Your task to perform on an android device: read, delete, or share a saved page in the chrome app Image 0: 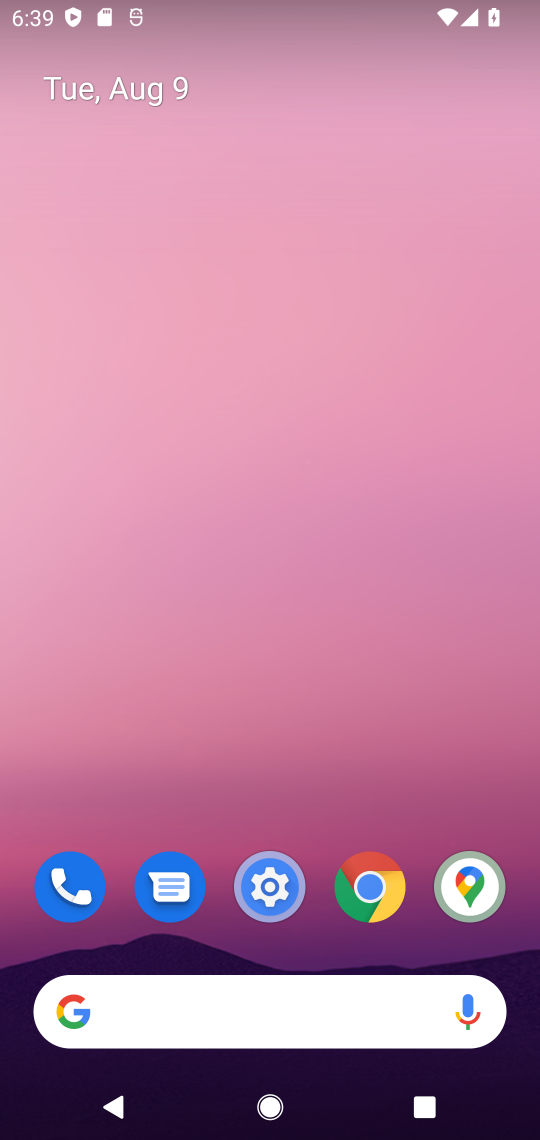
Step 0: click (378, 875)
Your task to perform on an android device: read, delete, or share a saved page in the chrome app Image 1: 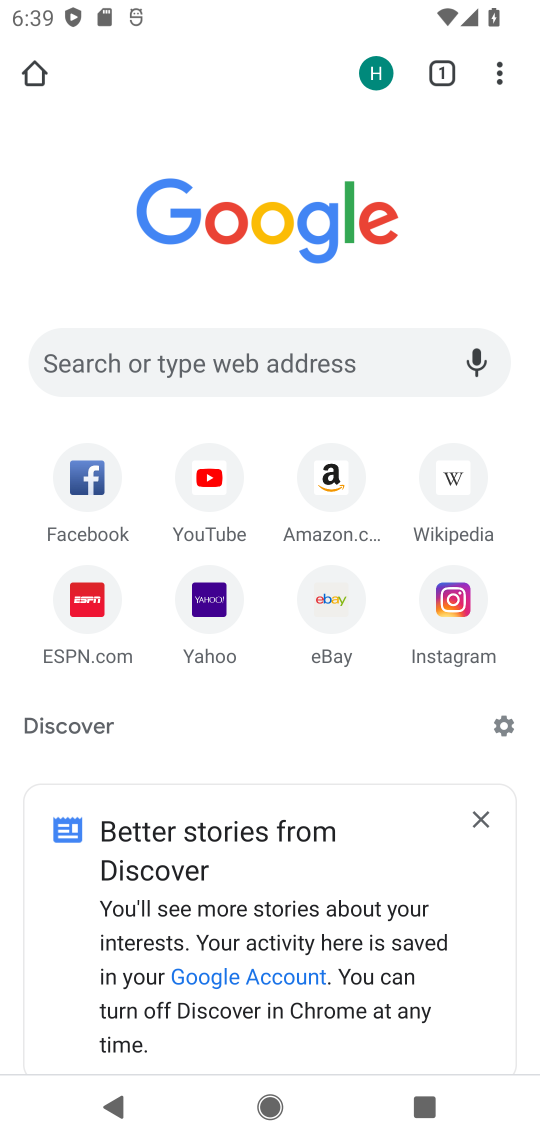
Step 1: click (497, 83)
Your task to perform on an android device: read, delete, or share a saved page in the chrome app Image 2: 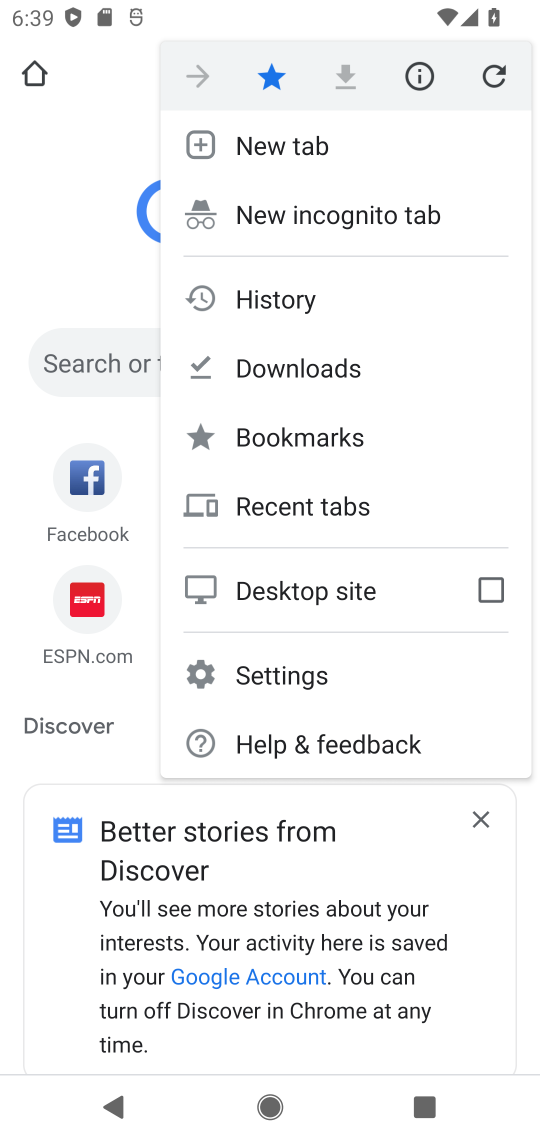
Step 2: click (316, 361)
Your task to perform on an android device: read, delete, or share a saved page in the chrome app Image 3: 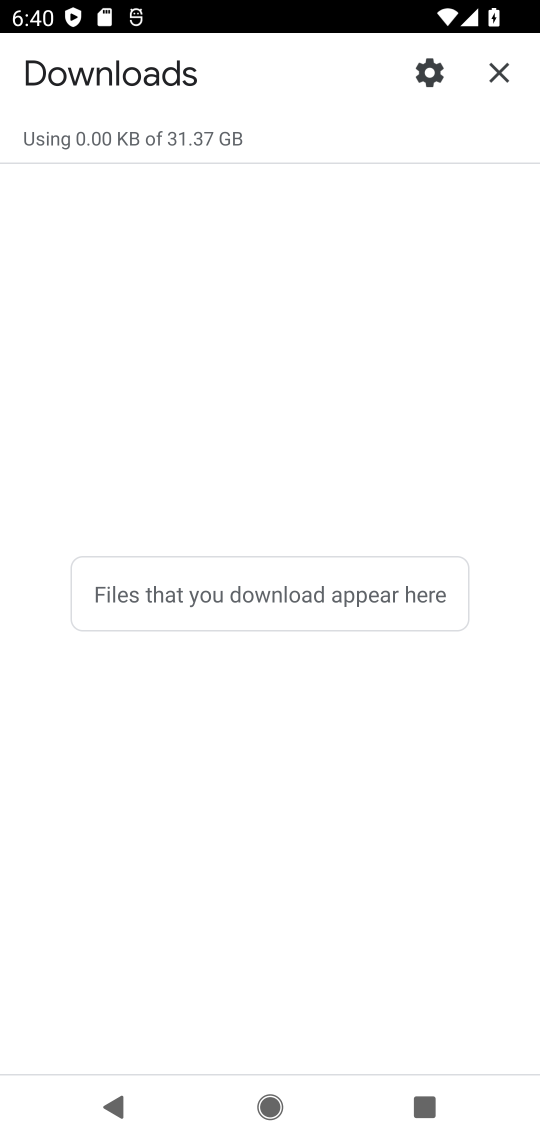
Step 3: task complete